Your task to perform on an android device: Do I have any events today? Image 0: 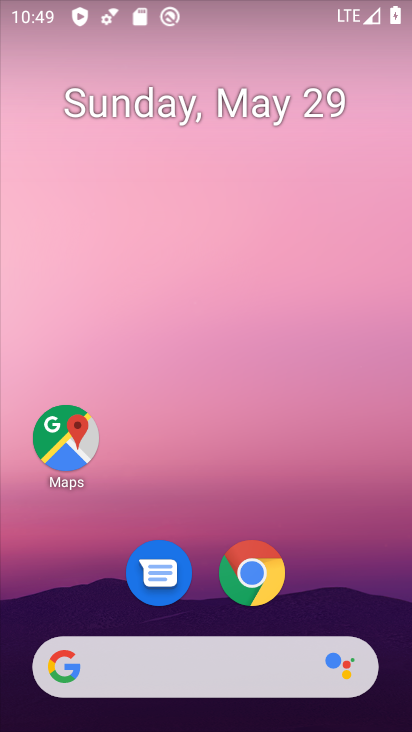
Step 0: drag from (307, 463) to (177, 36)
Your task to perform on an android device: Do I have any events today? Image 1: 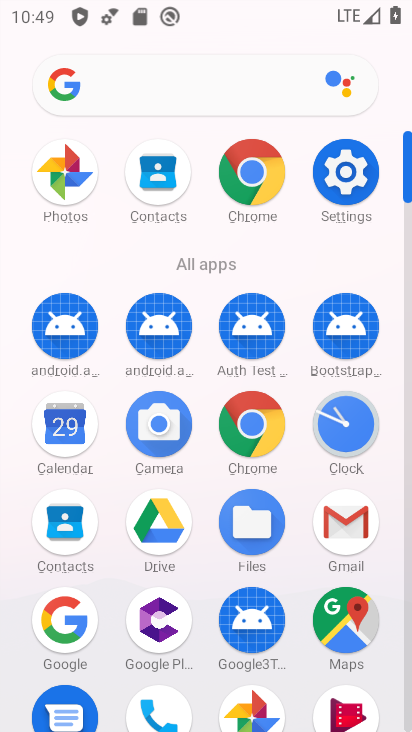
Step 1: click (69, 424)
Your task to perform on an android device: Do I have any events today? Image 2: 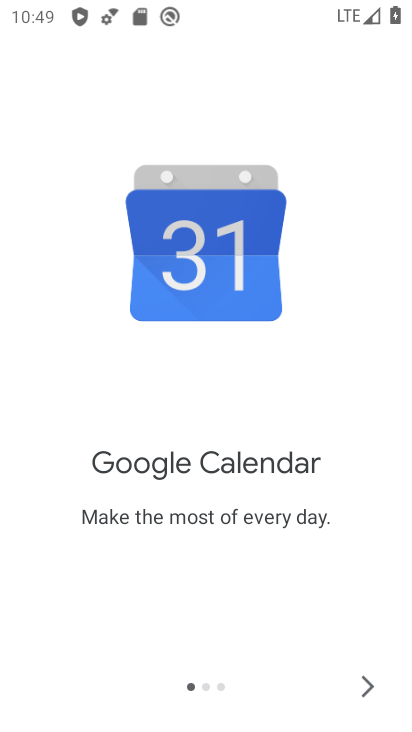
Step 2: click (367, 686)
Your task to perform on an android device: Do I have any events today? Image 3: 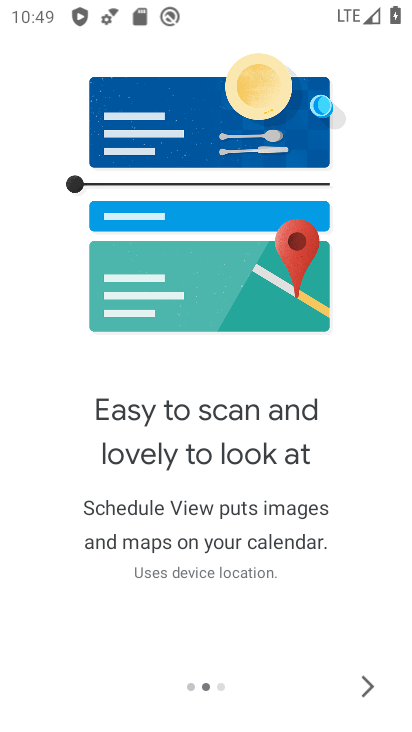
Step 3: click (367, 686)
Your task to perform on an android device: Do I have any events today? Image 4: 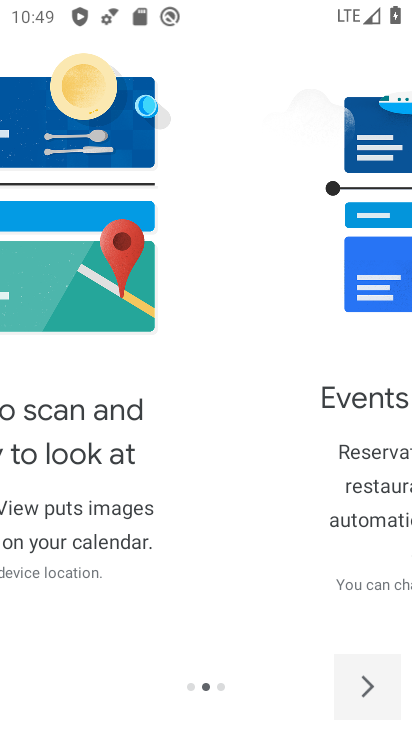
Step 4: click (367, 686)
Your task to perform on an android device: Do I have any events today? Image 5: 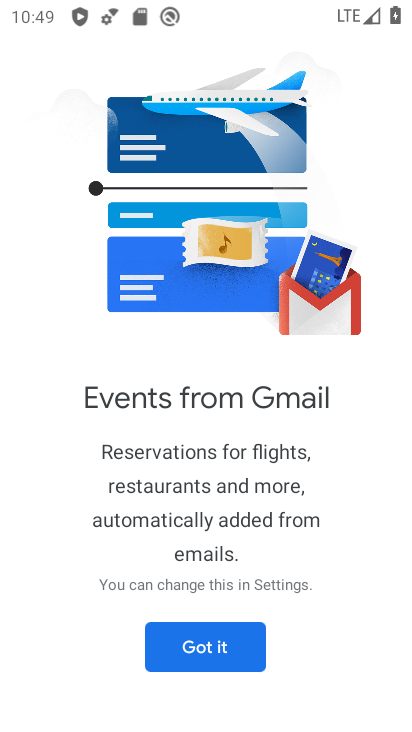
Step 5: click (216, 652)
Your task to perform on an android device: Do I have any events today? Image 6: 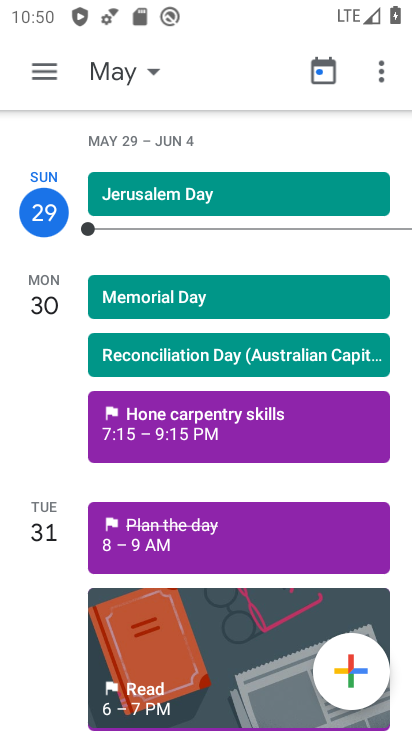
Step 6: task complete